Your task to perform on an android device: Go to calendar. Show me events next week Image 0: 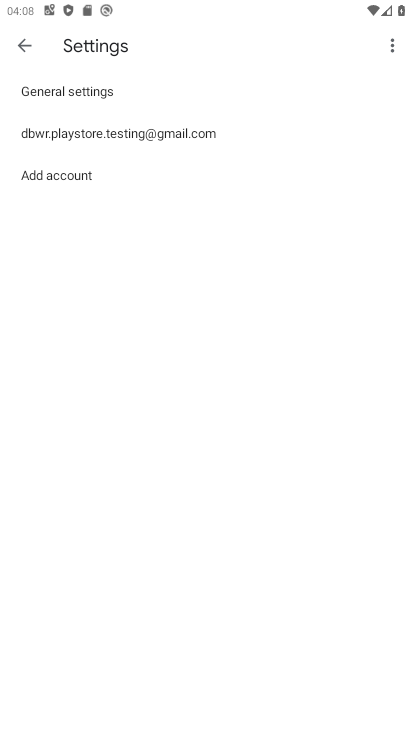
Step 0: press home button
Your task to perform on an android device: Go to calendar. Show me events next week Image 1: 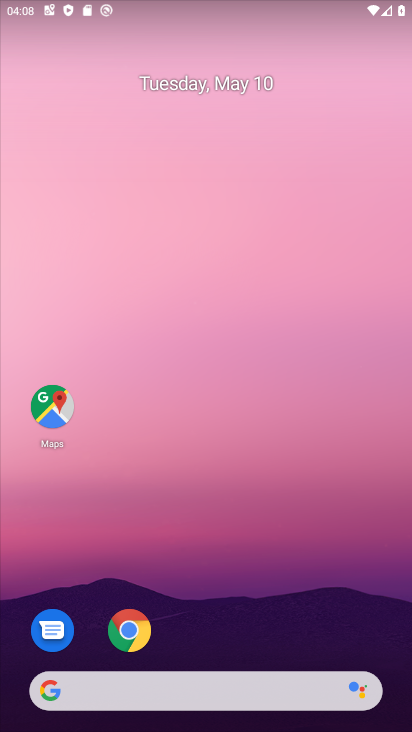
Step 1: click (225, 99)
Your task to perform on an android device: Go to calendar. Show me events next week Image 2: 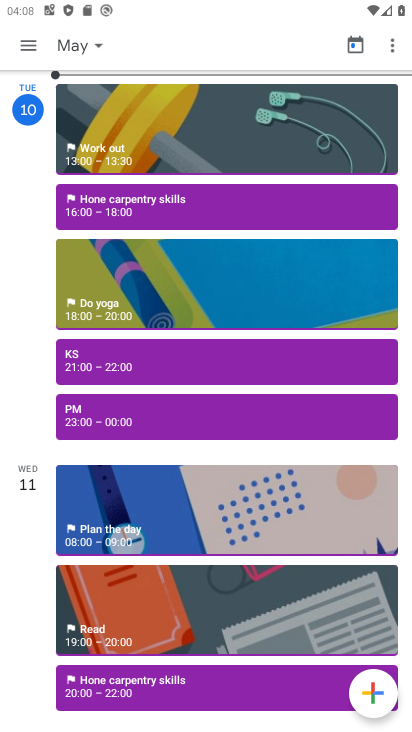
Step 2: click (103, 60)
Your task to perform on an android device: Go to calendar. Show me events next week Image 3: 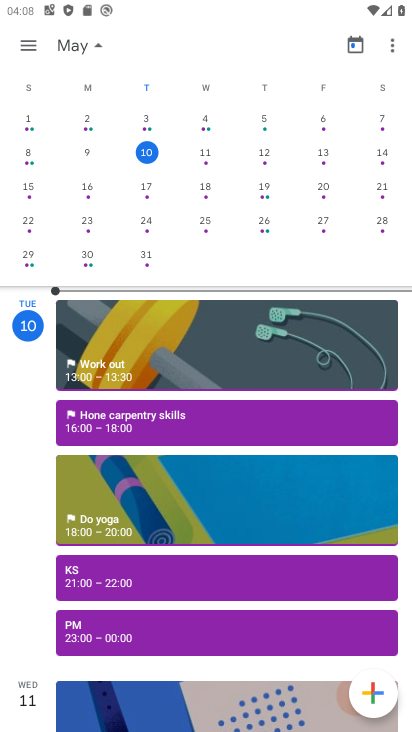
Step 3: click (143, 204)
Your task to perform on an android device: Go to calendar. Show me events next week Image 4: 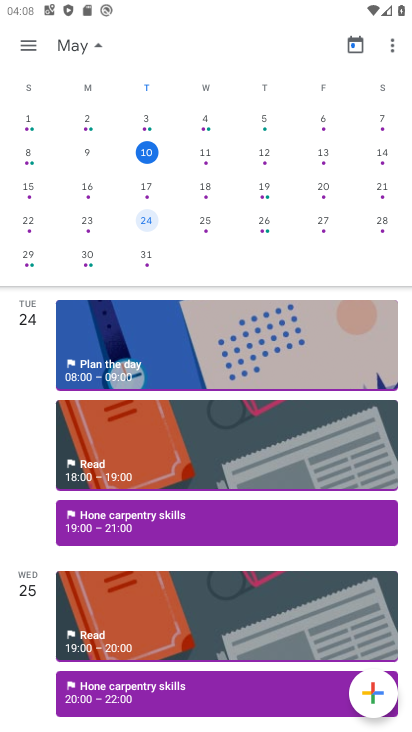
Step 4: click (148, 183)
Your task to perform on an android device: Go to calendar. Show me events next week Image 5: 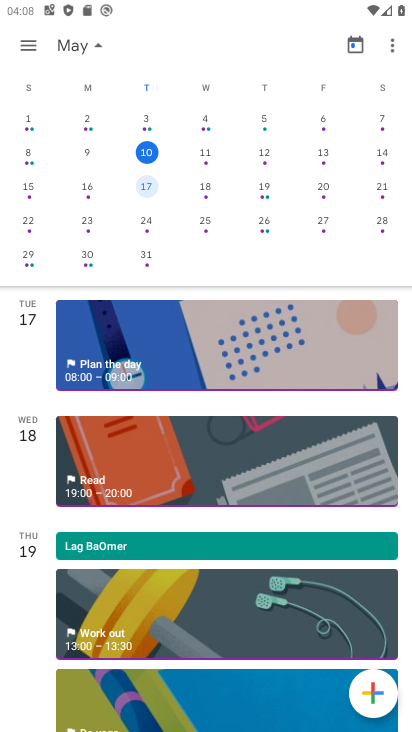
Step 5: task complete